Your task to perform on an android device: turn on wifi Image 0: 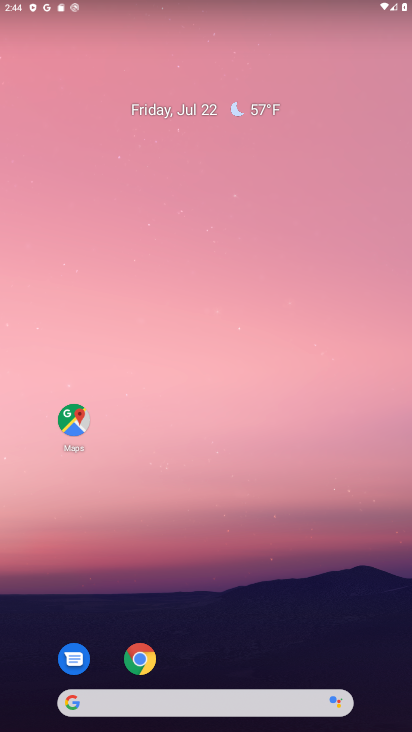
Step 0: drag from (281, 600) to (283, 20)
Your task to perform on an android device: turn on wifi Image 1: 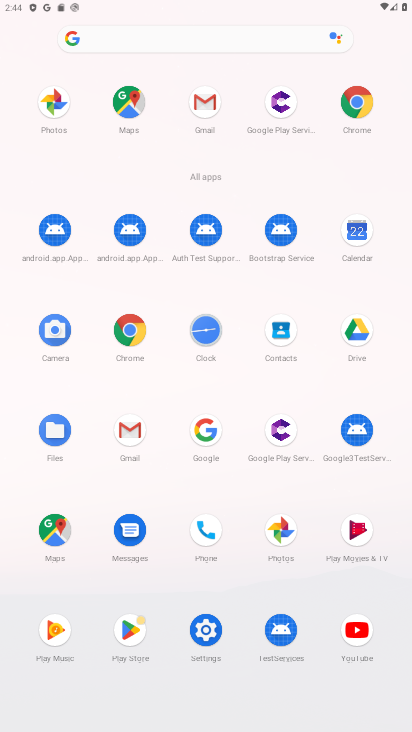
Step 1: click (196, 620)
Your task to perform on an android device: turn on wifi Image 2: 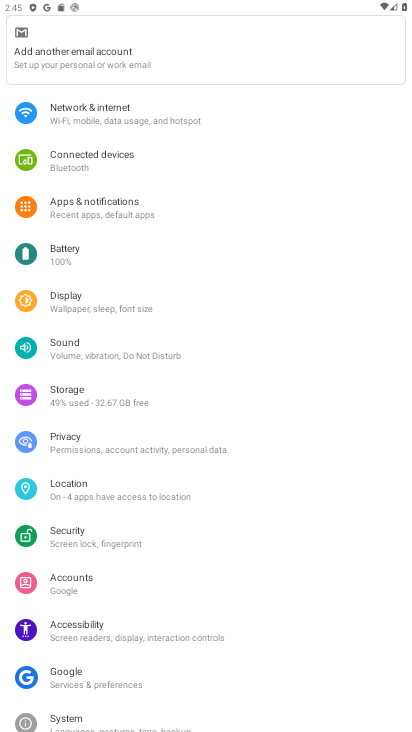
Step 2: click (141, 119)
Your task to perform on an android device: turn on wifi Image 3: 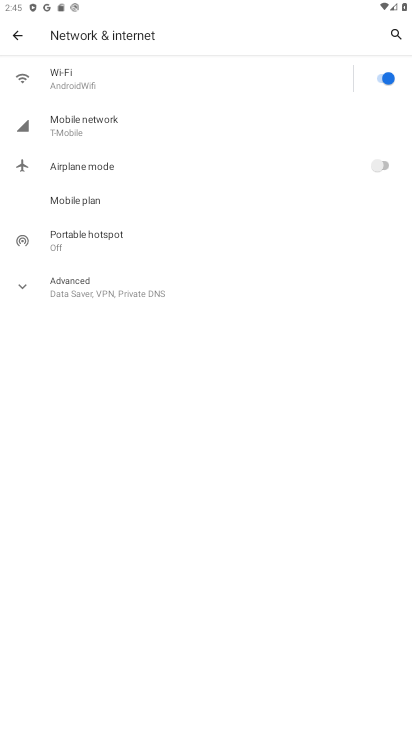
Step 3: task complete